Your task to perform on an android device: manage bookmarks in the chrome app Image 0: 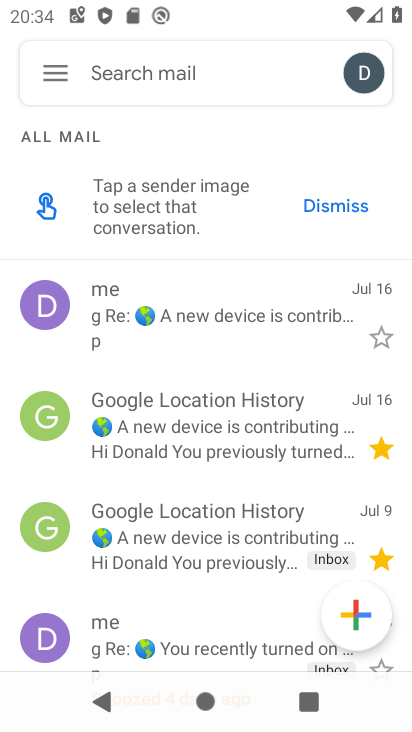
Step 0: drag from (230, 551) to (208, 316)
Your task to perform on an android device: manage bookmarks in the chrome app Image 1: 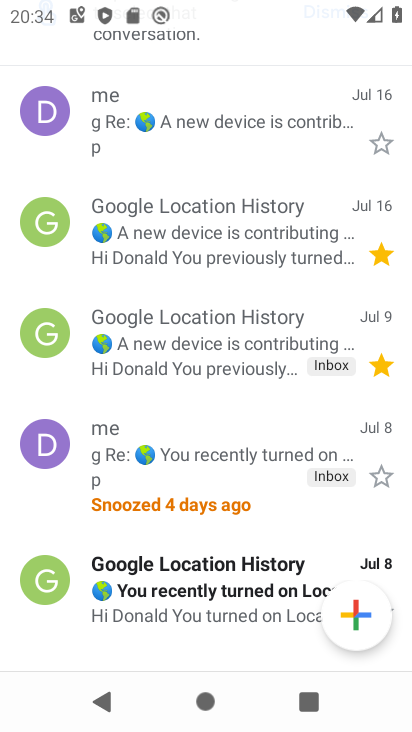
Step 1: press home button
Your task to perform on an android device: manage bookmarks in the chrome app Image 2: 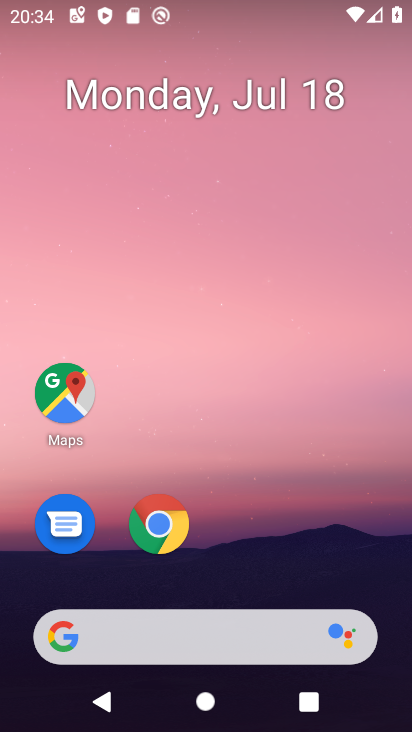
Step 2: click (166, 530)
Your task to perform on an android device: manage bookmarks in the chrome app Image 3: 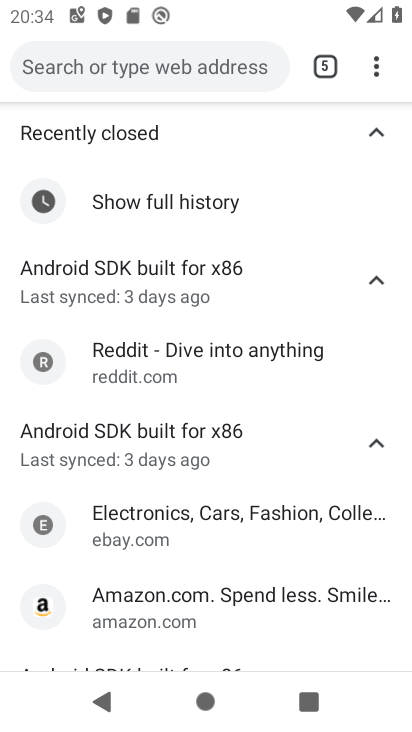
Step 3: click (377, 65)
Your task to perform on an android device: manage bookmarks in the chrome app Image 4: 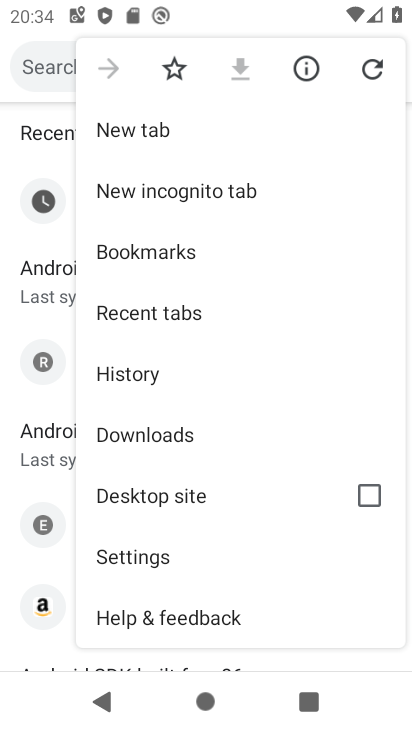
Step 4: click (178, 242)
Your task to perform on an android device: manage bookmarks in the chrome app Image 5: 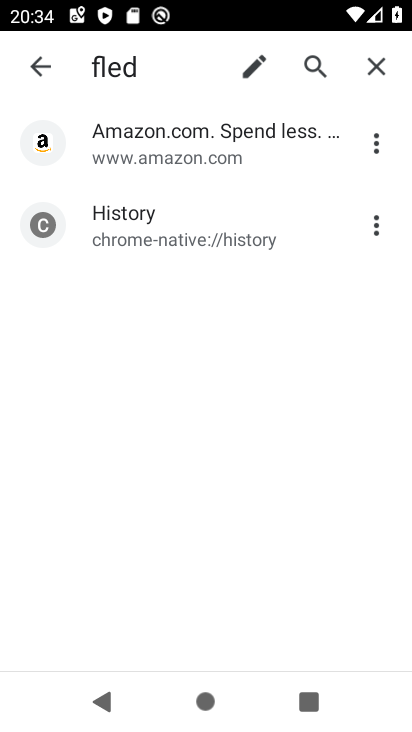
Step 5: click (376, 142)
Your task to perform on an android device: manage bookmarks in the chrome app Image 6: 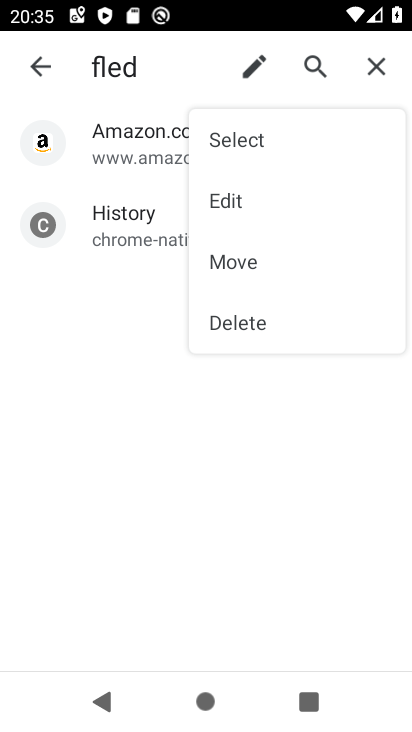
Step 6: click (247, 198)
Your task to perform on an android device: manage bookmarks in the chrome app Image 7: 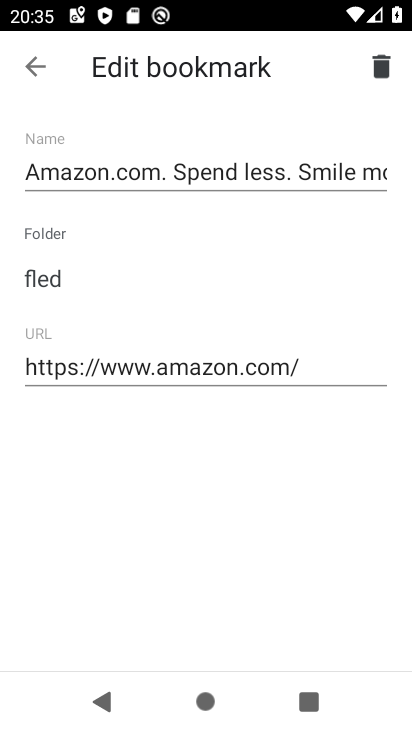
Step 7: click (38, 62)
Your task to perform on an android device: manage bookmarks in the chrome app Image 8: 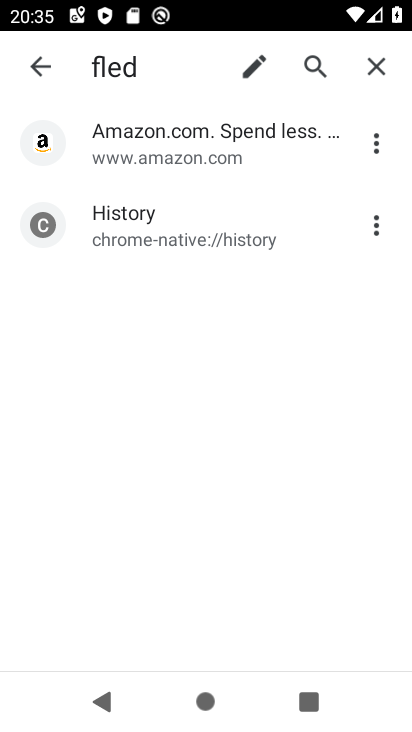
Step 8: task complete